Your task to perform on an android device: turn off location history Image 0: 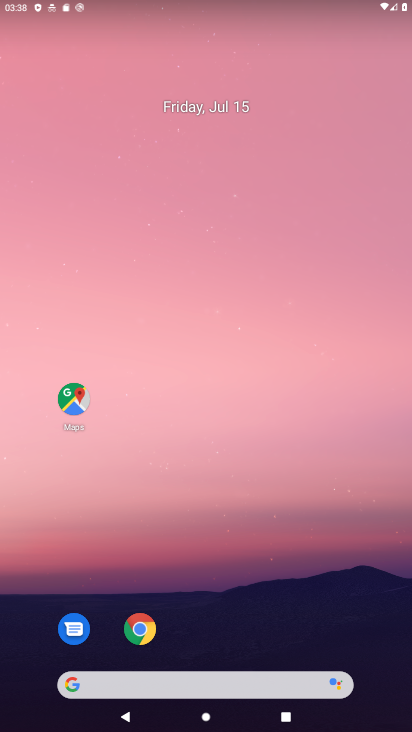
Step 0: drag from (301, 489) to (247, 97)
Your task to perform on an android device: turn off location history Image 1: 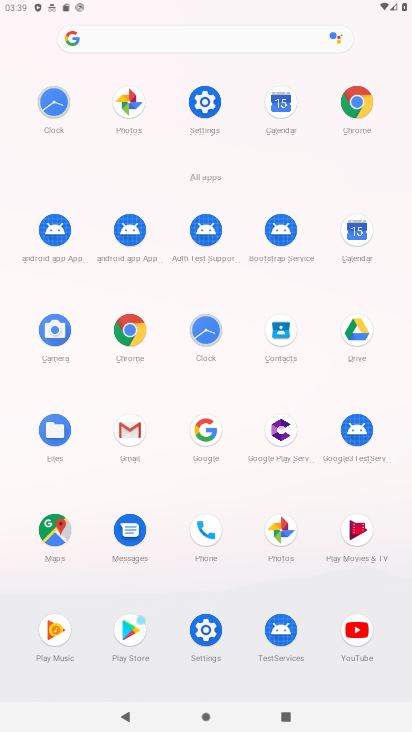
Step 1: click (53, 512)
Your task to perform on an android device: turn off location history Image 2: 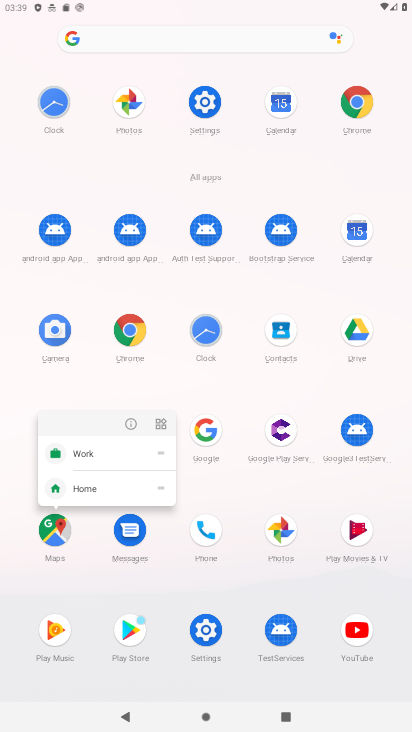
Step 2: click (53, 527)
Your task to perform on an android device: turn off location history Image 3: 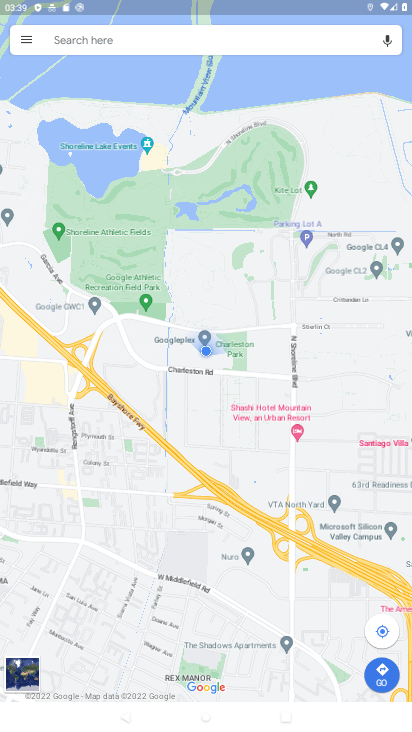
Step 3: click (23, 34)
Your task to perform on an android device: turn off location history Image 4: 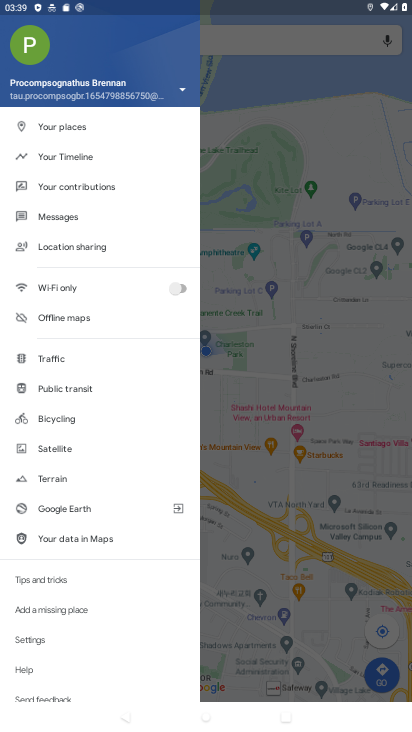
Step 4: click (48, 151)
Your task to perform on an android device: turn off location history Image 5: 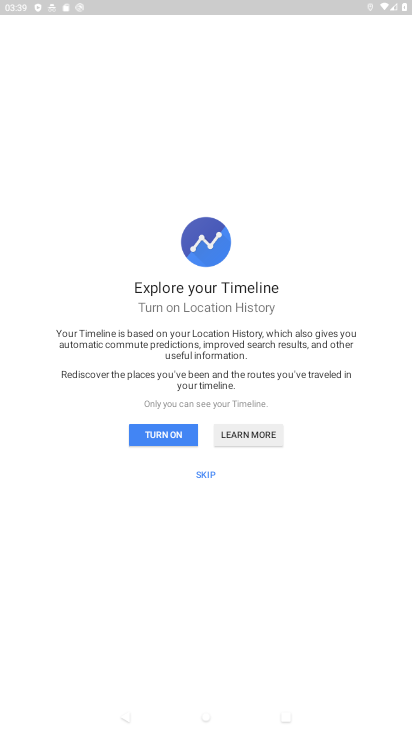
Step 5: click (147, 433)
Your task to perform on an android device: turn off location history Image 6: 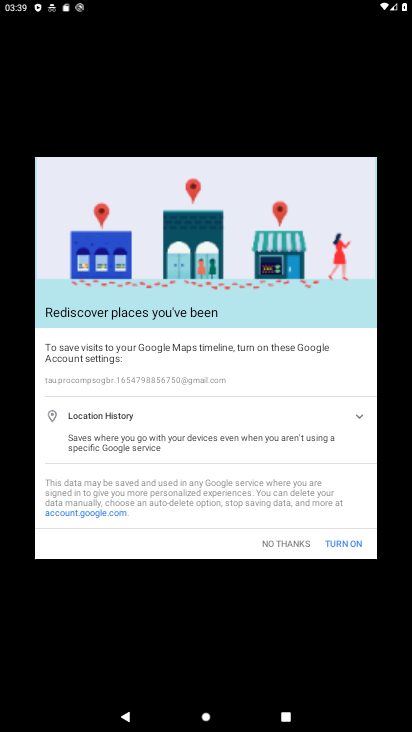
Step 6: click (294, 540)
Your task to perform on an android device: turn off location history Image 7: 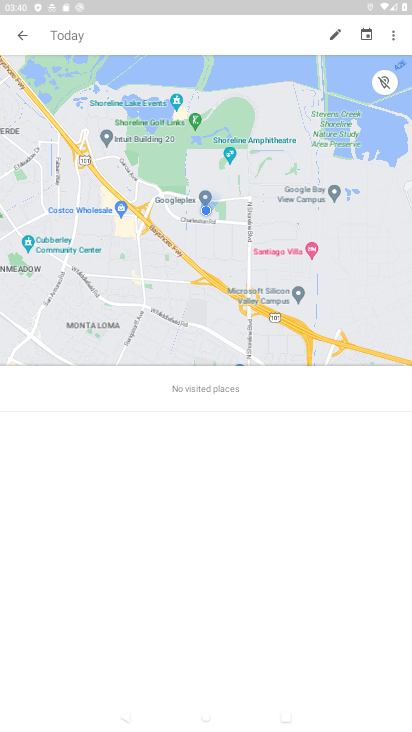
Step 7: click (395, 37)
Your task to perform on an android device: turn off location history Image 8: 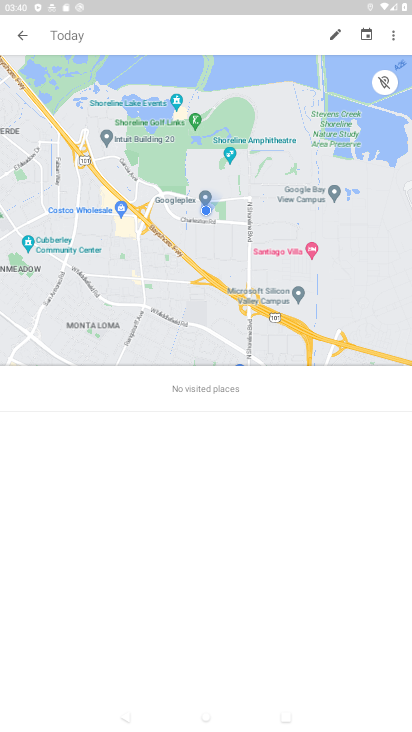
Step 8: click (393, 32)
Your task to perform on an android device: turn off location history Image 9: 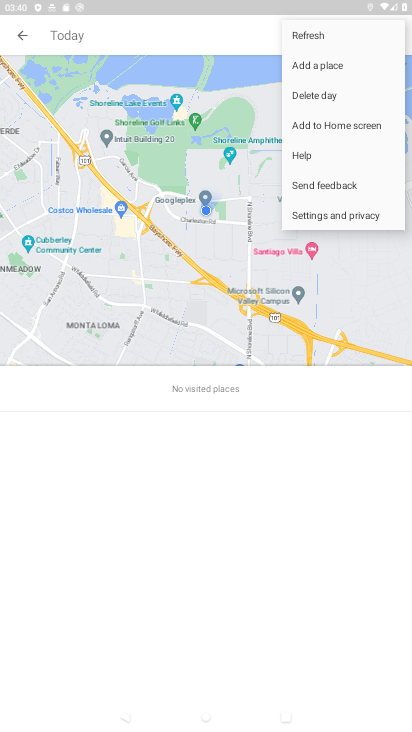
Step 9: click (303, 220)
Your task to perform on an android device: turn off location history Image 10: 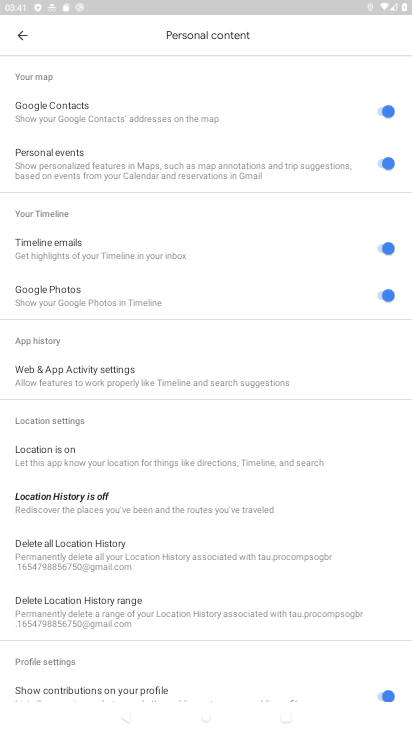
Step 10: click (136, 491)
Your task to perform on an android device: turn off location history Image 11: 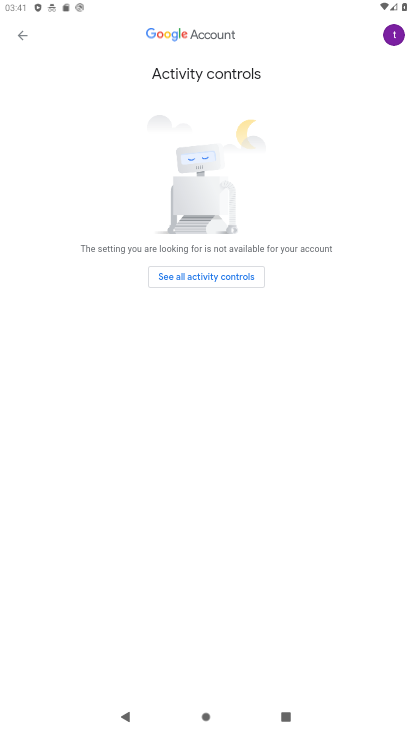
Step 11: task complete